Your task to perform on an android device: View the shopping cart on amazon. Add "acer predator" to the cart on amazon, then select checkout. Image 0: 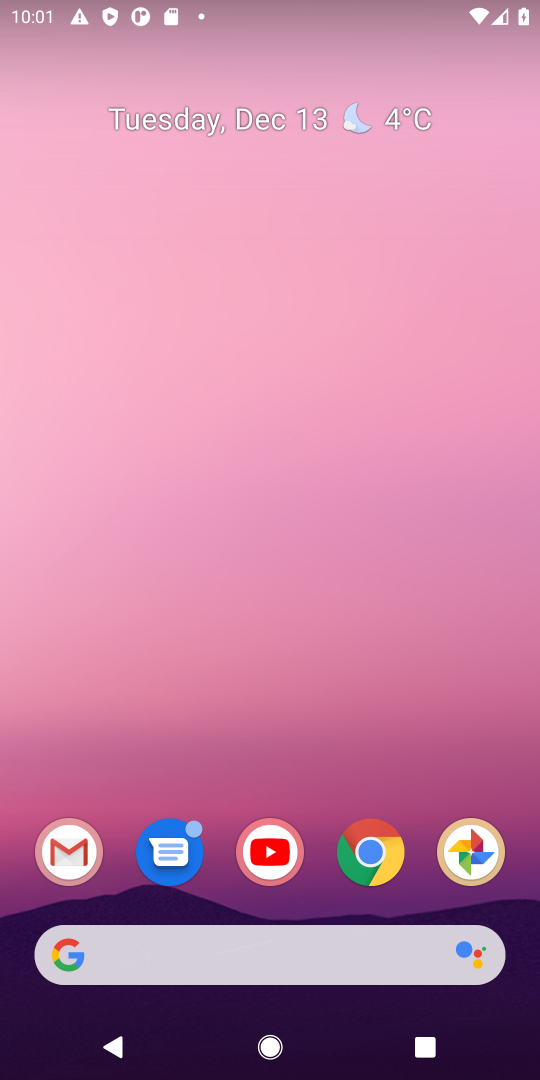
Step 0: press home button
Your task to perform on an android device: View the shopping cart on amazon. Add "acer predator" to the cart on amazon, then select checkout. Image 1: 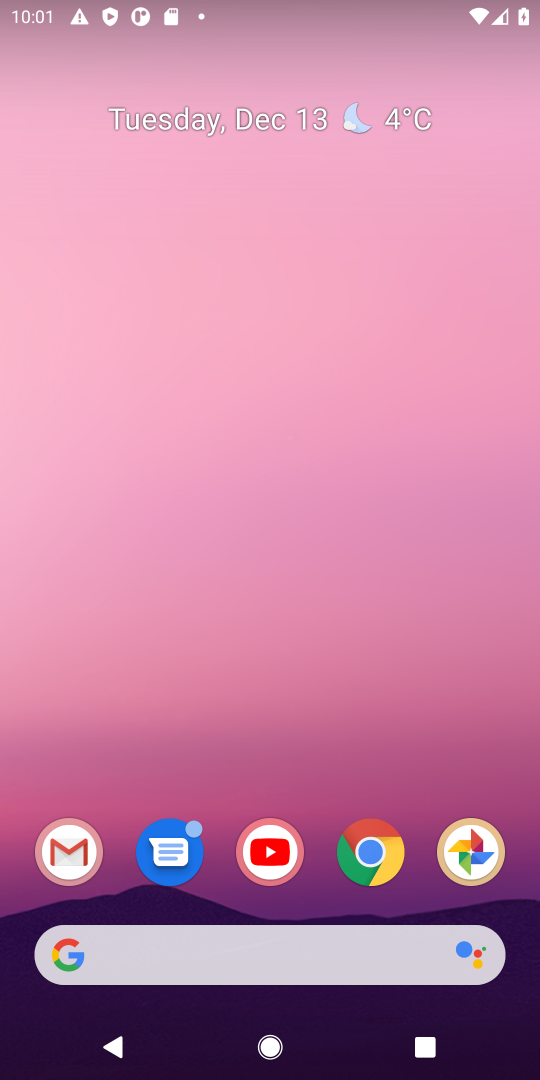
Step 1: click (118, 950)
Your task to perform on an android device: View the shopping cart on amazon. Add "acer predator" to the cart on amazon, then select checkout. Image 2: 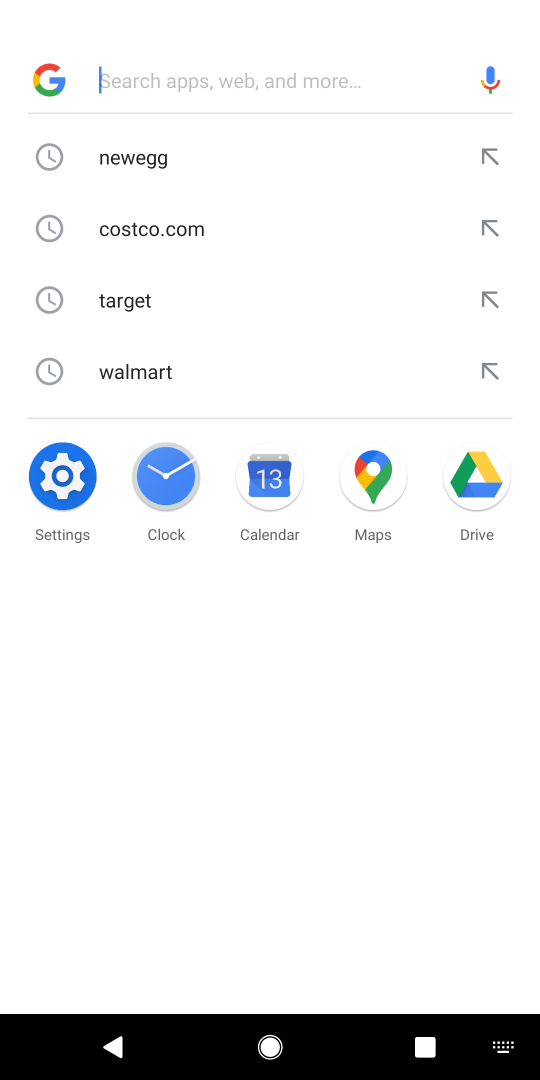
Step 2: type "amazon"
Your task to perform on an android device: View the shopping cart on amazon. Add "acer predator" to the cart on amazon, then select checkout. Image 3: 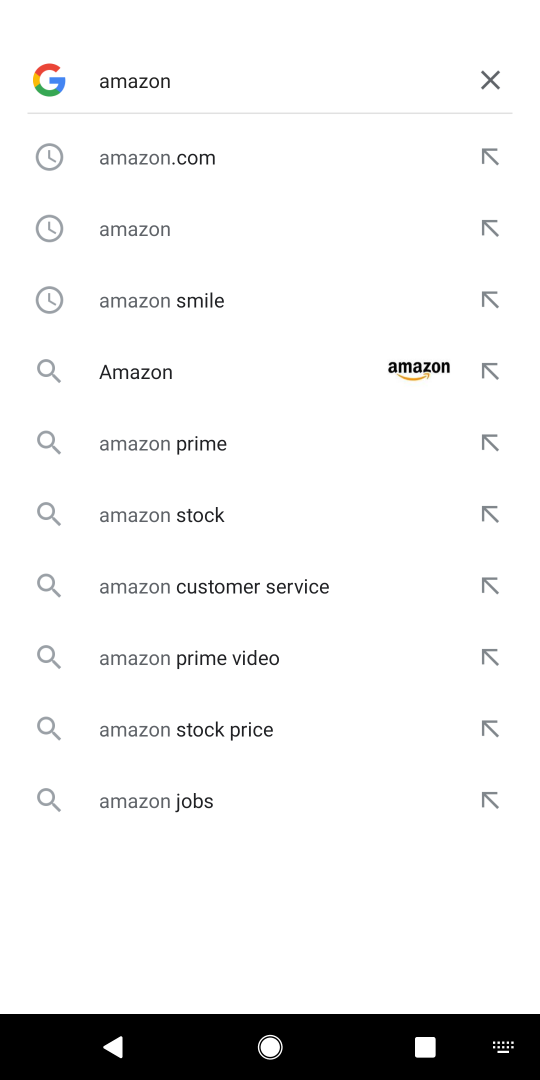
Step 3: press enter
Your task to perform on an android device: View the shopping cart on amazon. Add "acer predator" to the cart on amazon, then select checkout. Image 4: 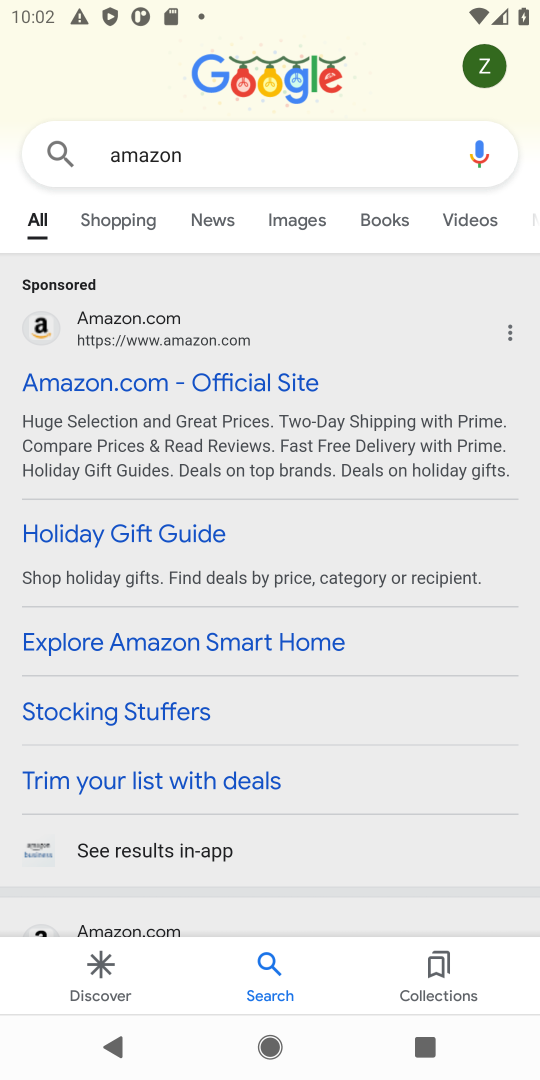
Step 4: click (237, 386)
Your task to perform on an android device: View the shopping cart on amazon. Add "acer predator" to the cart on amazon, then select checkout. Image 5: 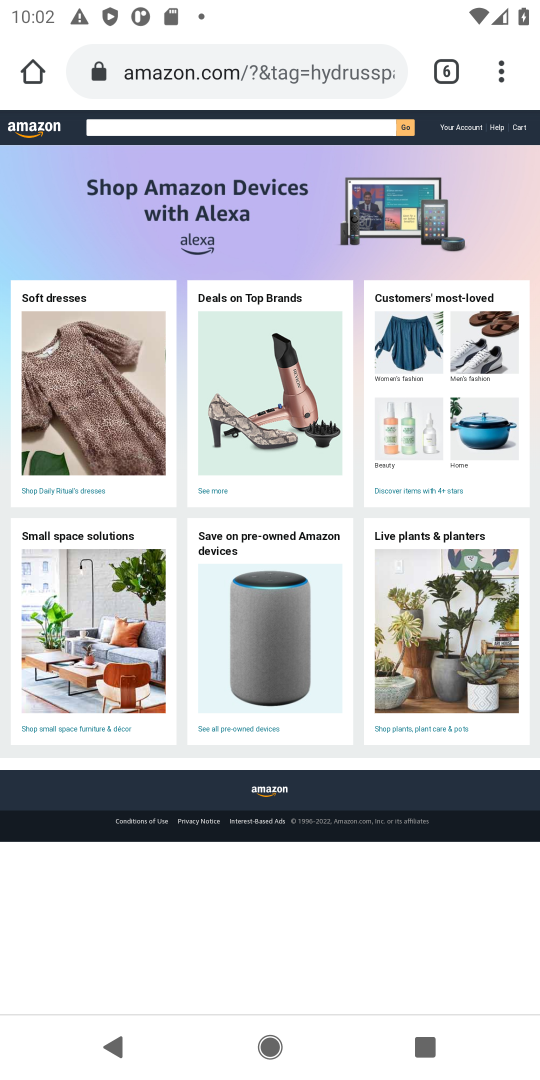
Step 5: click (163, 126)
Your task to perform on an android device: View the shopping cart on amazon. Add "acer predator" to the cart on amazon, then select checkout. Image 6: 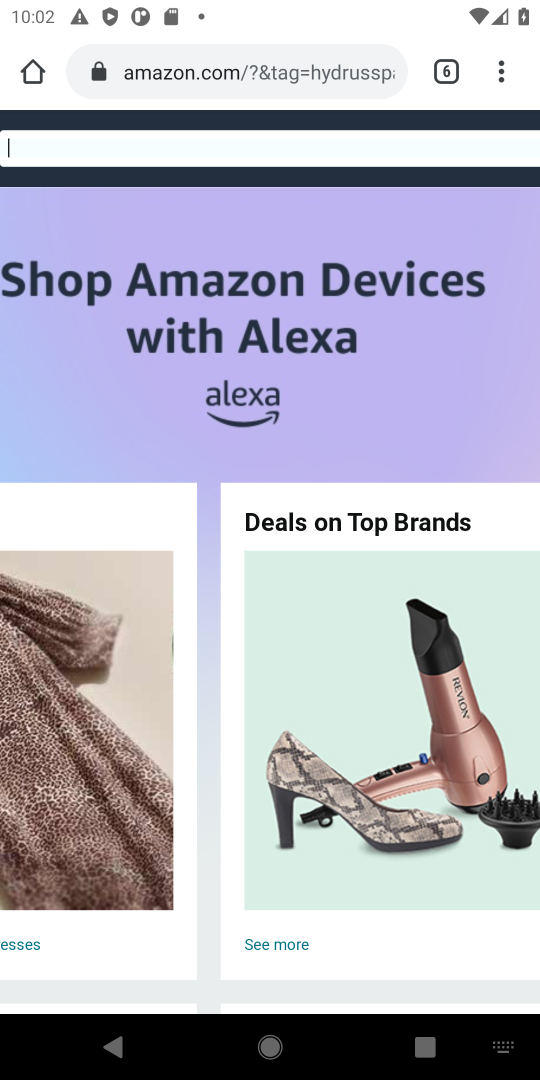
Step 6: type "acer predator"
Your task to perform on an android device: View the shopping cart on amazon. Add "acer predator" to the cart on amazon, then select checkout. Image 7: 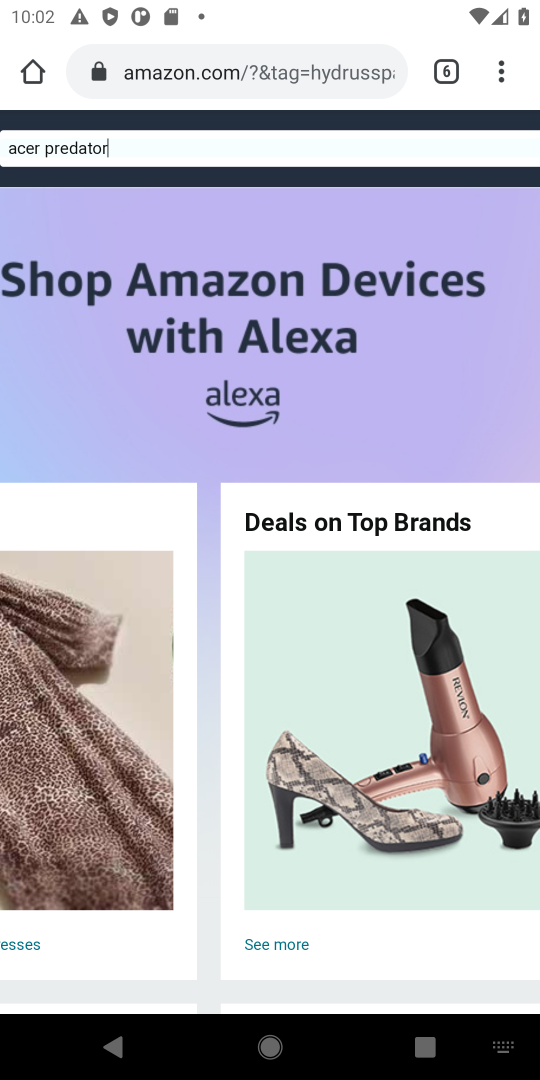
Step 7: press enter
Your task to perform on an android device: View the shopping cart on amazon. Add "acer predator" to the cart on amazon, then select checkout. Image 8: 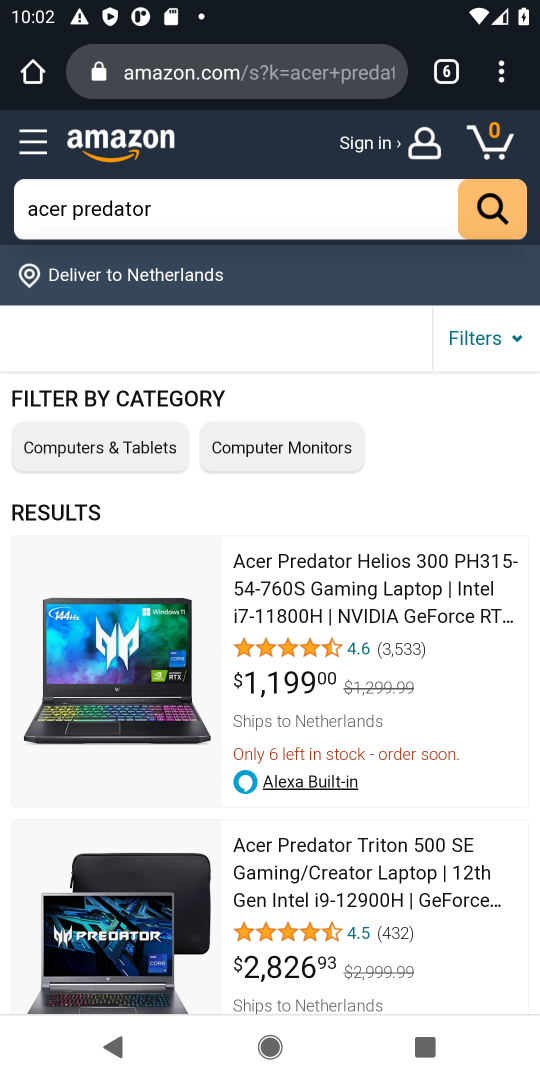
Step 8: click (322, 590)
Your task to perform on an android device: View the shopping cart on amazon. Add "acer predator" to the cart on amazon, then select checkout. Image 9: 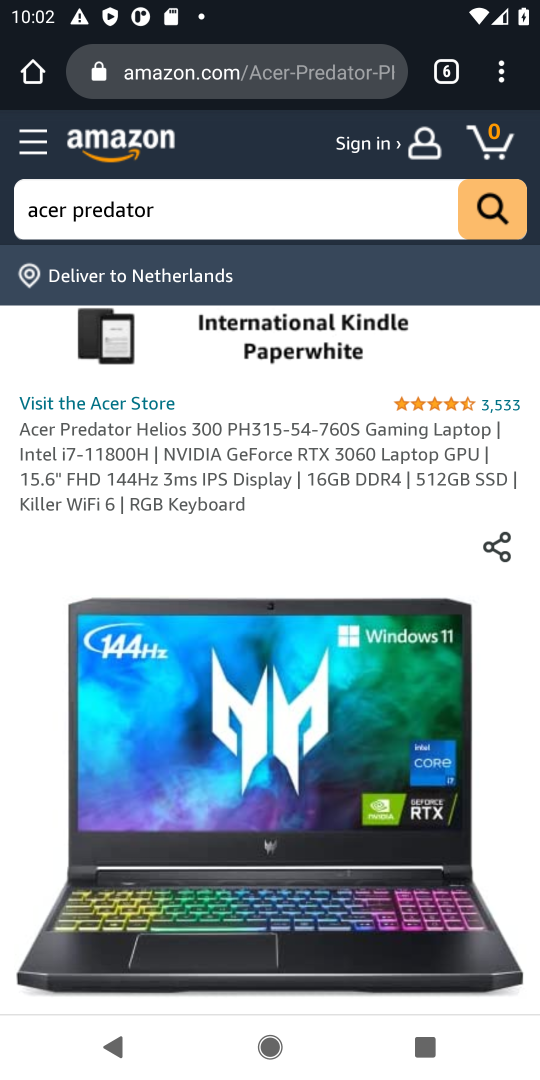
Step 9: drag from (319, 847) to (319, 373)
Your task to perform on an android device: View the shopping cart on amazon. Add "acer predator" to the cart on amazon, then select checkout. Image 10: 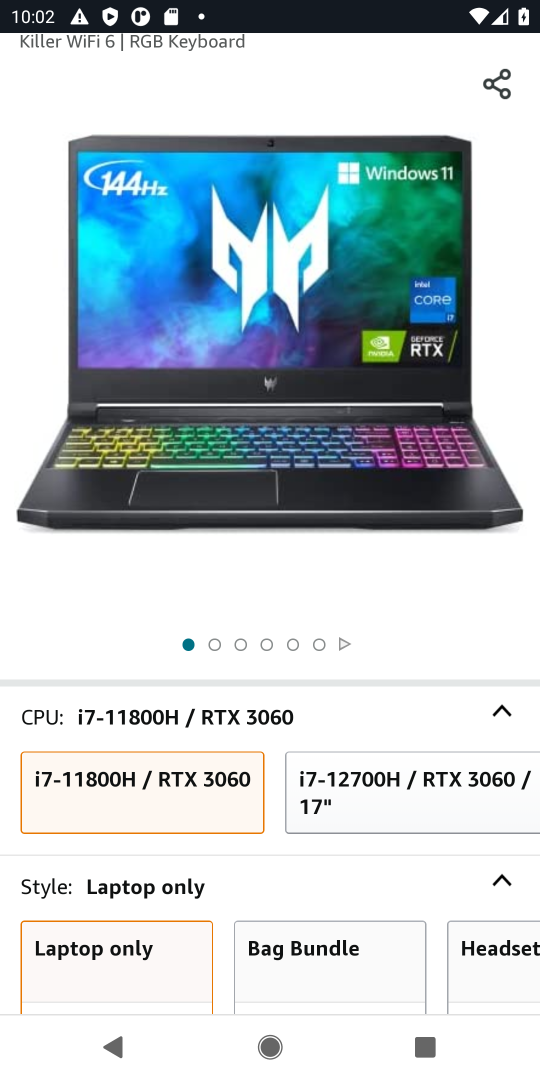
Step 10: drag from (284, 833) to (324, 354)
Your task to perform on an android device: View the shopping cart on amazon. Add "acer predator" to the cart on amazon, then select checkout. Image 11: 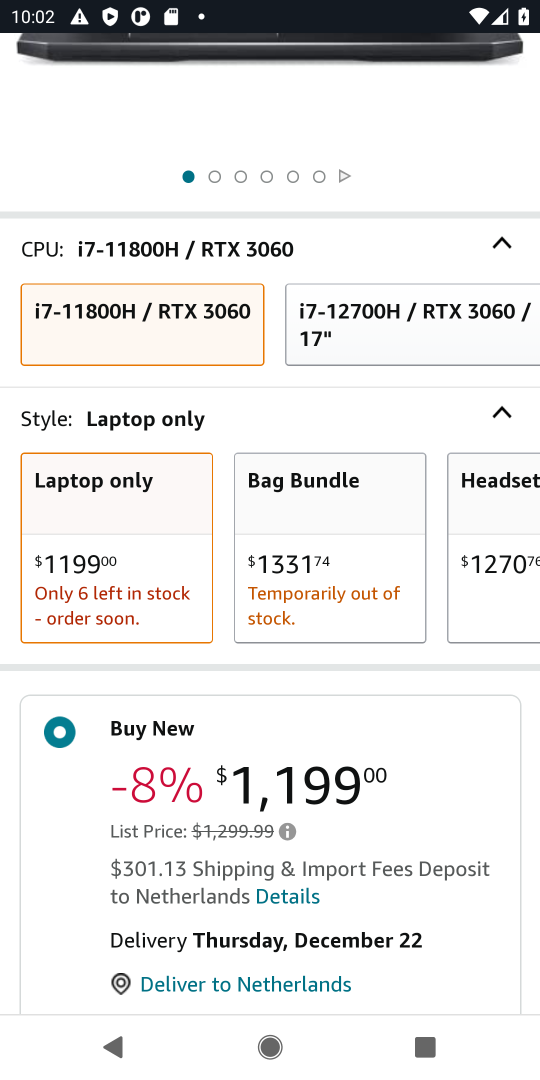
Step 11: drag from (274, 884) to (313, 267)
Your task to perform on an android device: View the shopping cart on amazon. Add "acer predator" to the cart on amazon, then select checkout. Image 12: 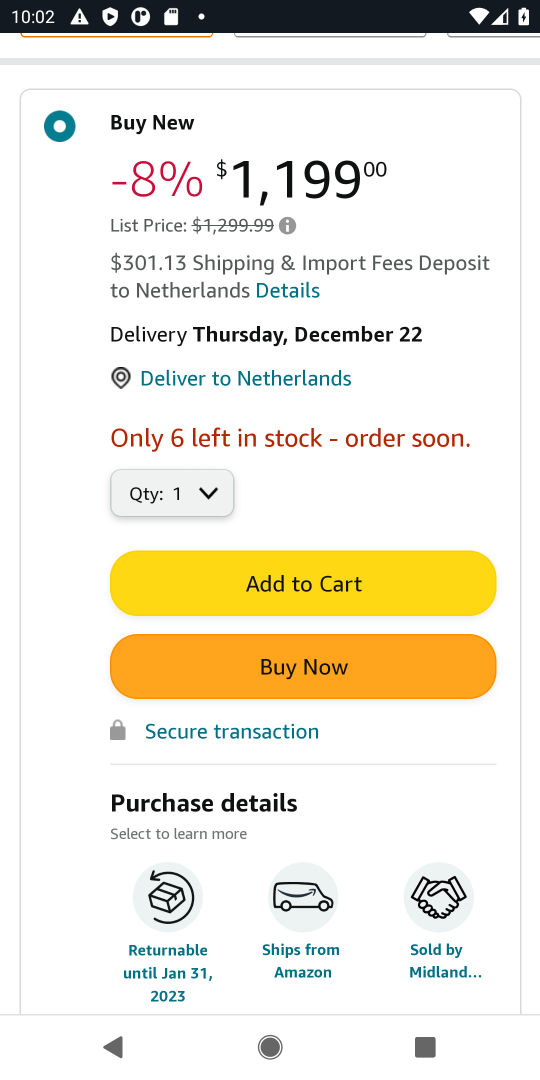
Step 12: click (300, 575)
Your task to perform on an android device: View the shopping cart on amazon. Add "acer predator" to the cart on amazon, then select checkout. Image 13: 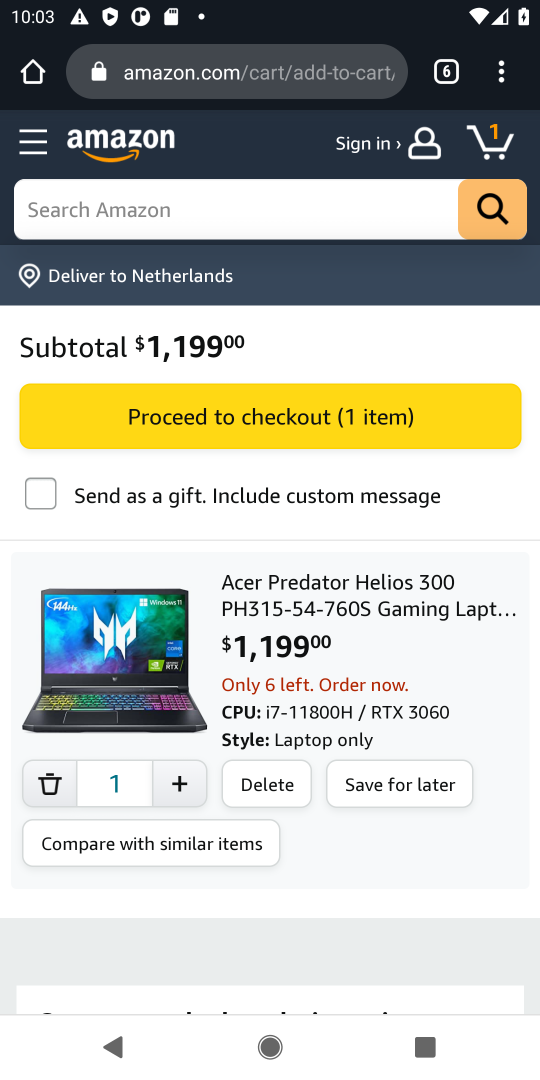
Step 13: click (264, 409)
Your task to perform on an android device: View the shopping cart on amazon. Add "acer predator" to the cart on amazon, then select checkout. Image 14: 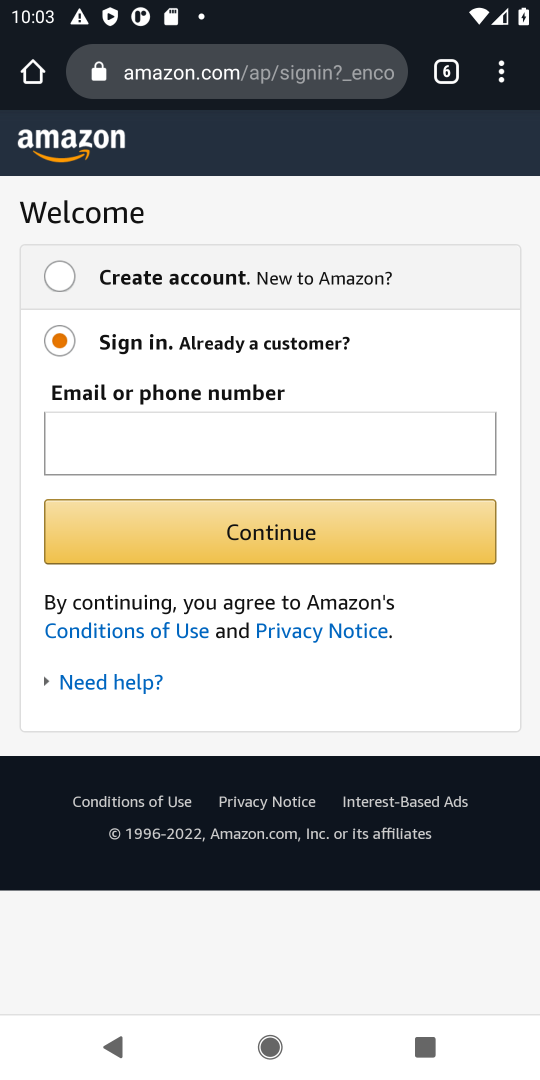
Step 14: task complete